Your task to perform on an android device: Set the phone to "Do not disturb". Image 0: 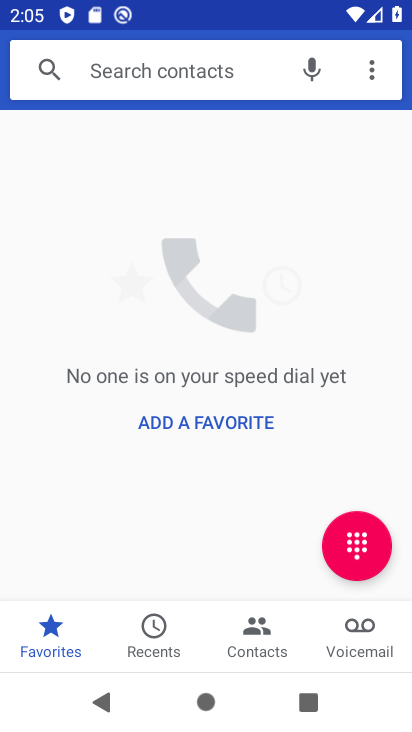
Step 0: press home button
Your task to perform on an android device: Set the phone to "Do not disturb". Image 1: 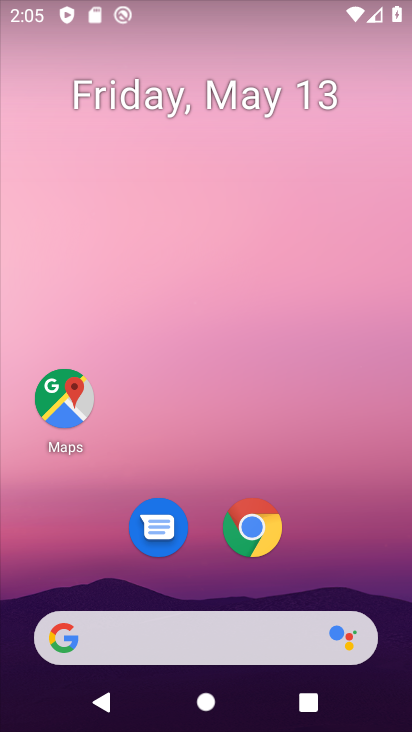
Step 1: drag from (382, 563) to (247, 132)
Your task to perform on an android device: Set the phone to "Do not disturb". Image 2: 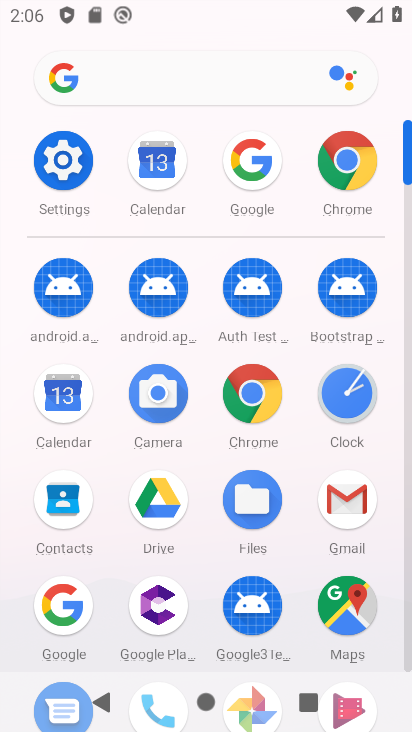
Step 2: click (73, 161)
Your task to perform on an android device: Set the phone to "Do not disturb". Image 3: 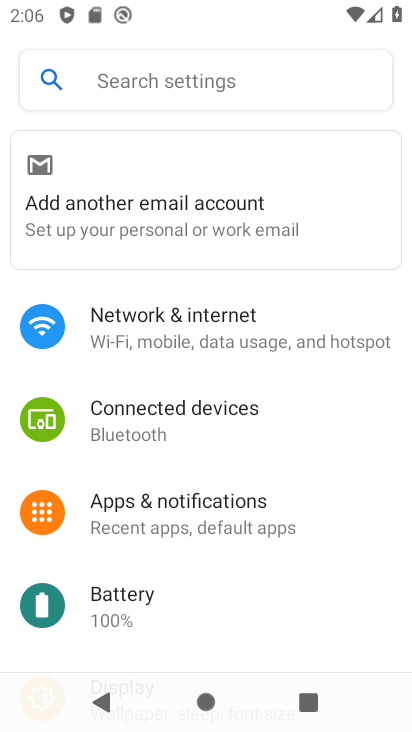
Step 3: drag from (289, 618) to (285, 374)
Your task to perform on an android device: Set the phone to "Do not disturb". Image 4: 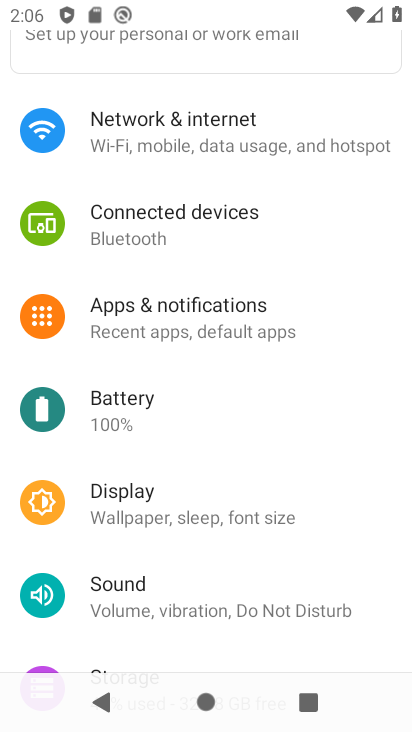
Step 4: drag from (283, 558) to (285, 380)
Your task to perform on an android device: Set the phone to "Do not disturb". Image 5: 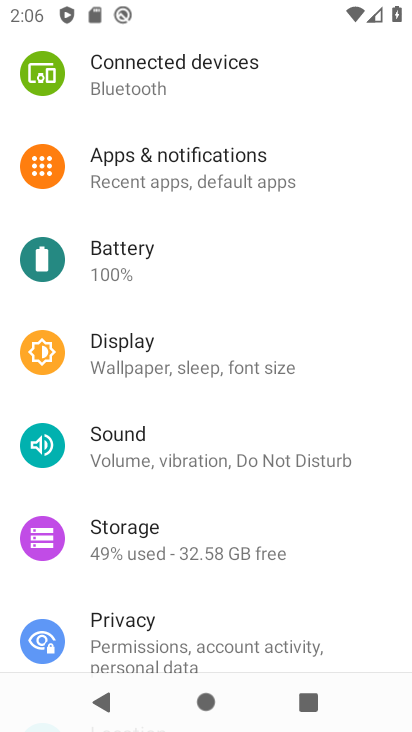
Step 5: drag from (296, 215) to (290, 414)
Your task to perform on an android device: Set the phone to "Do not disturb". Image 6: 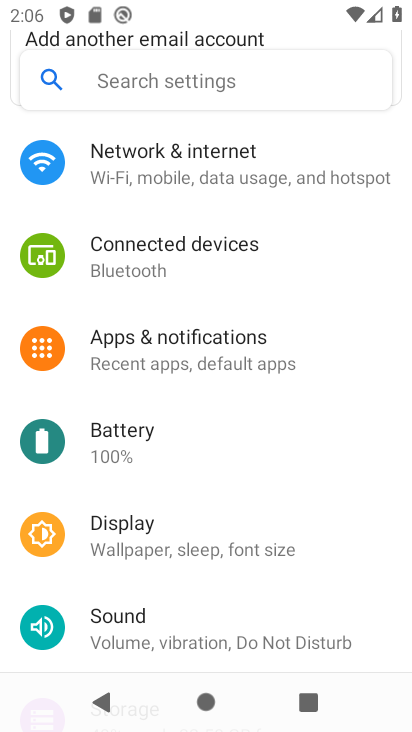
Step 6: click (154, 636)
Your task to perform on an android device: Set the phone to "Do not disturb". Image 7: 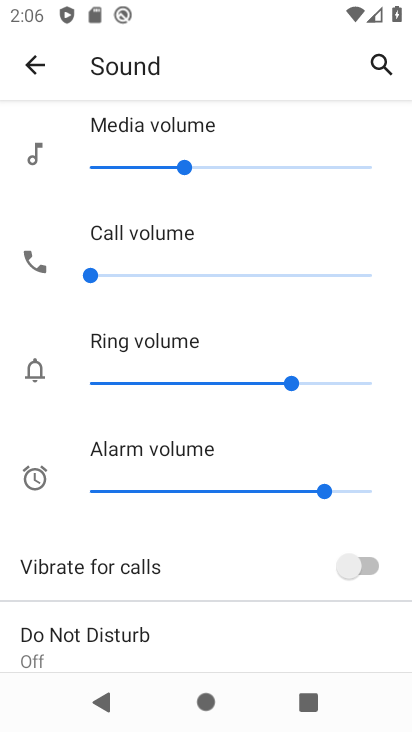
Step 7: drag from (217, 629) to (254, 390)
Your task to perform on an android device: Set the phone to "Do not disturb". Image 8: 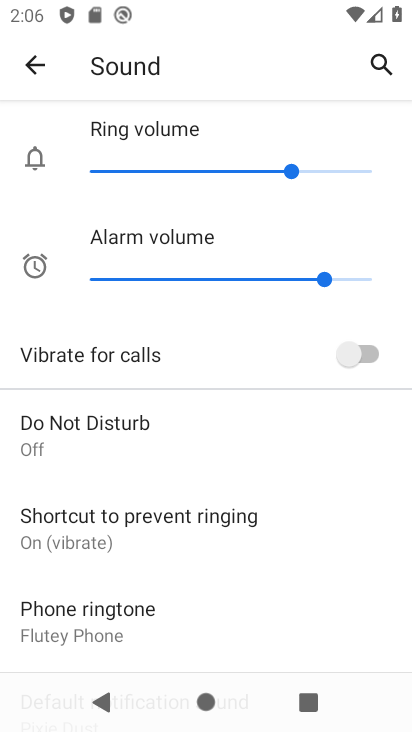
Step 8: drag from (276, 238) to (278, 596)
Your task to perform on an android device: Set the phone to "Do not disturb". Image 9: 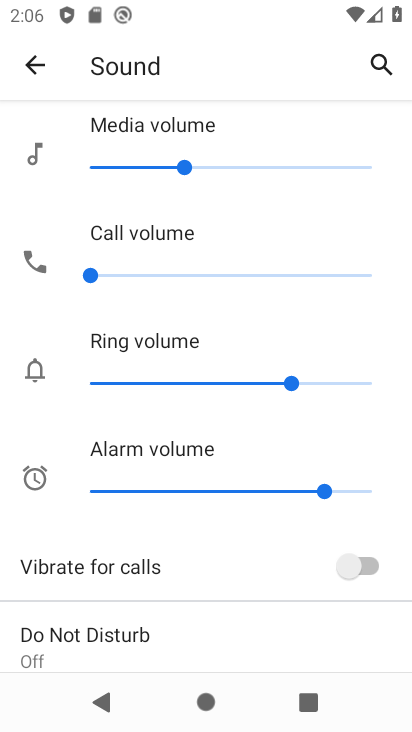
Step 9: drag from (219, 315) to (223, 610)
Your task to perform on an android device: Set the phone to "Do not disturb". Image 10: 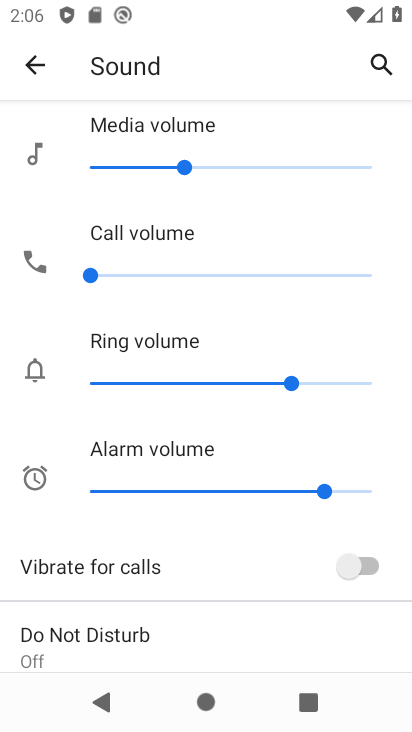
Step 10: drag from (226, 631) to (251, 421)
Your task to perform on an android device: Set the phone to "Do not disturb". Image 11: 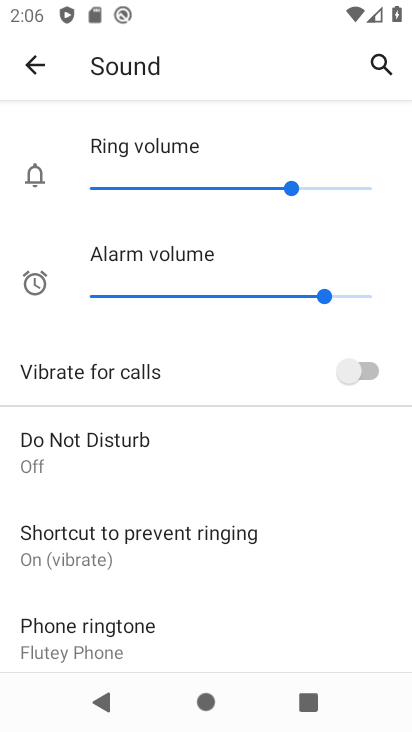
Step 11: click (193, 477)
Your task to perform on an android device: Set the phone to "Do not disturb". Image 12: 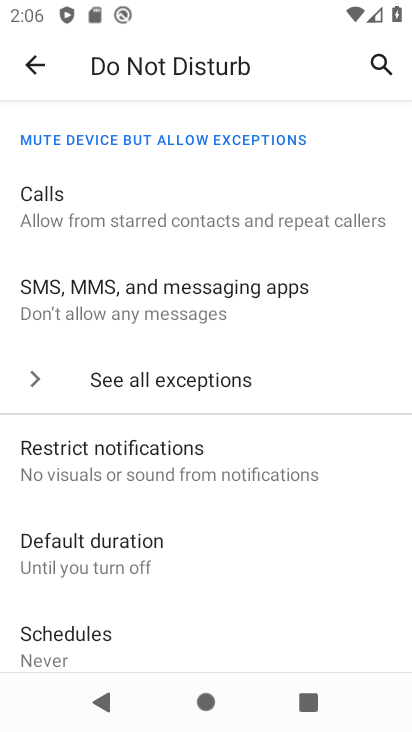
Step 12: drag from (211, 596) to (249, 303)
Your task to perform on an android device: Set the phone to "Do not disturb". Image 13: 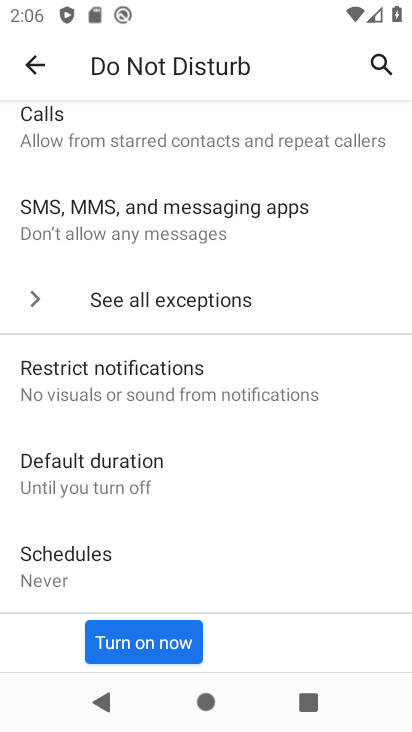
Step 13: click (172, 635)
Your task to perform on an android device: Set the phone to "Do not disturb". Image 14: 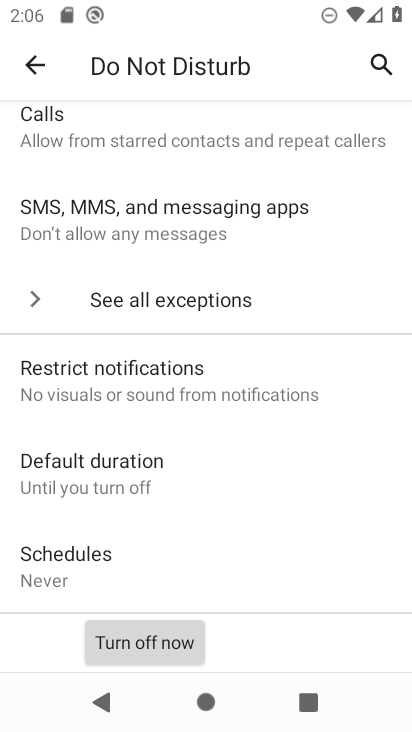
Step 14: task complete